Your task to perform on an android device: Go to wifi settings Image 0: 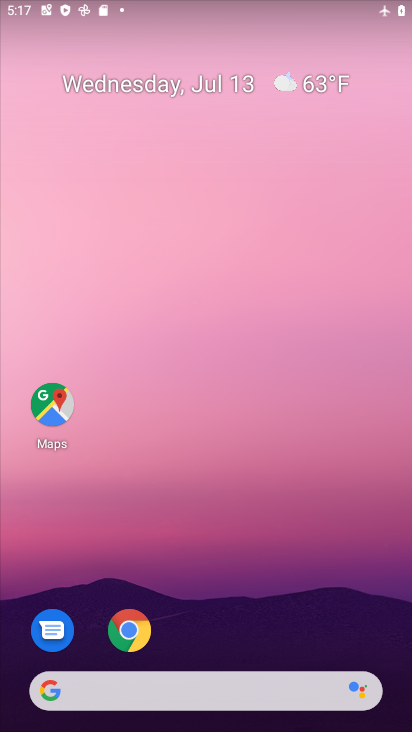
Step 0: press home button
Your task to perform on an android device: Go to wifi settings Image 1: 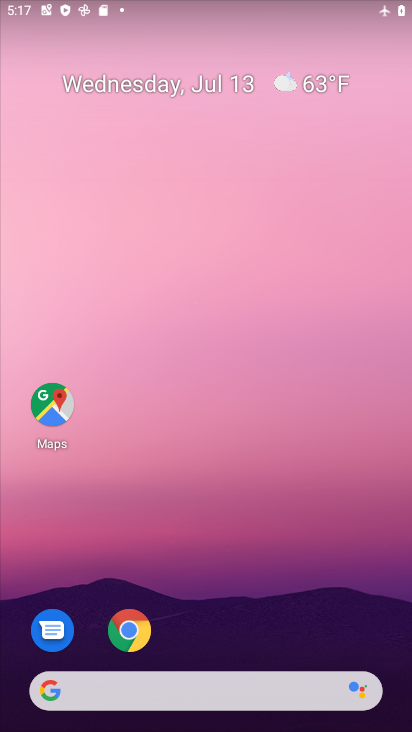
Step 1: drag from (221, 633) to (133, 58)
Your task to perform on an android device: Go to wifi settings Image 2: 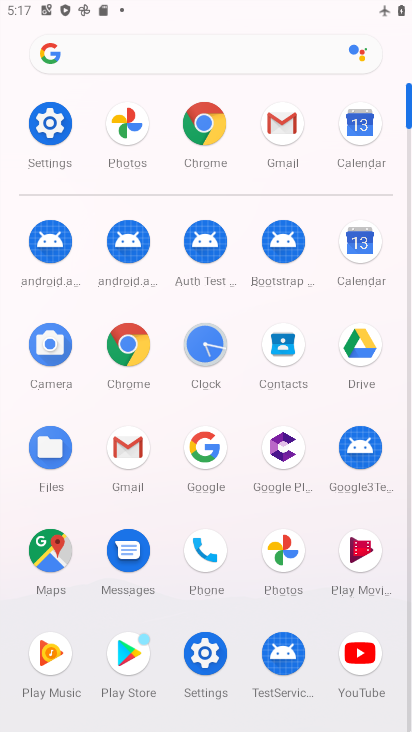
Step 2: click (38, 141)
Your task to perform on an android device: Go to wifi settings Image 3: 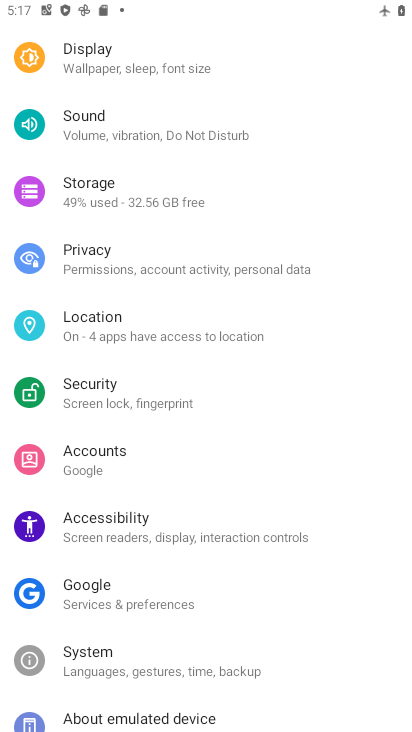
Step 3: drag from (246, 68) to (252, 629)
Your task to perform on an android device: Go to wifi settings Image 4: 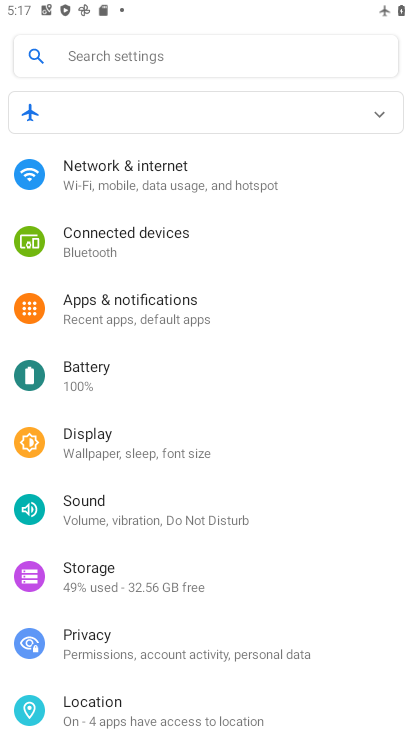
Step 4: click (106, 193)
Your task to perform on an android device: Go to wifi settings Image 5: 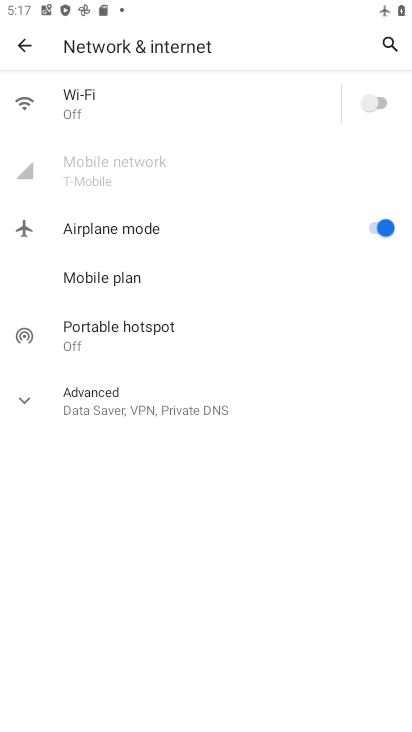
Step 5: click (94, 97)
Your task to perform on an android device: Go to wifi settings Image 6: 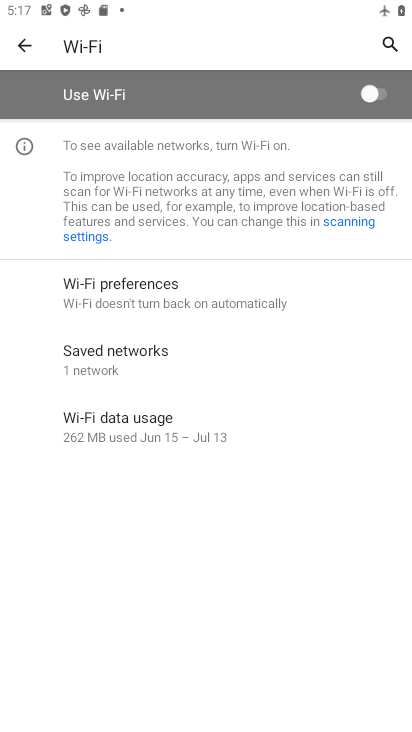
Step 6: click (363, 83)
Your task to perform on an android device: Go to wifi settings Image 7: 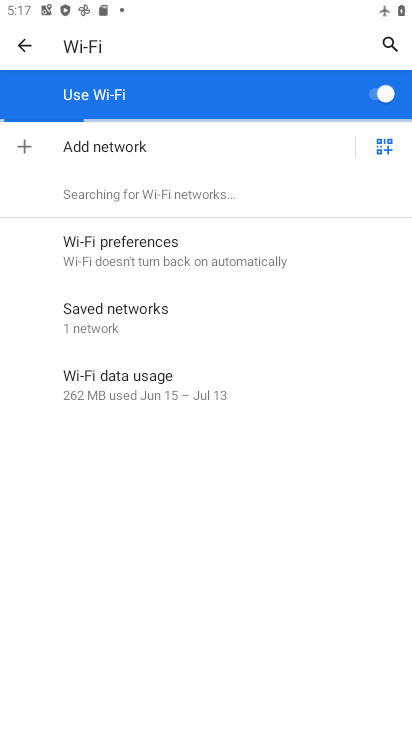
Step 7: task complete